Your task to perform on an android device: Clear the cart on newegg. Image 0: 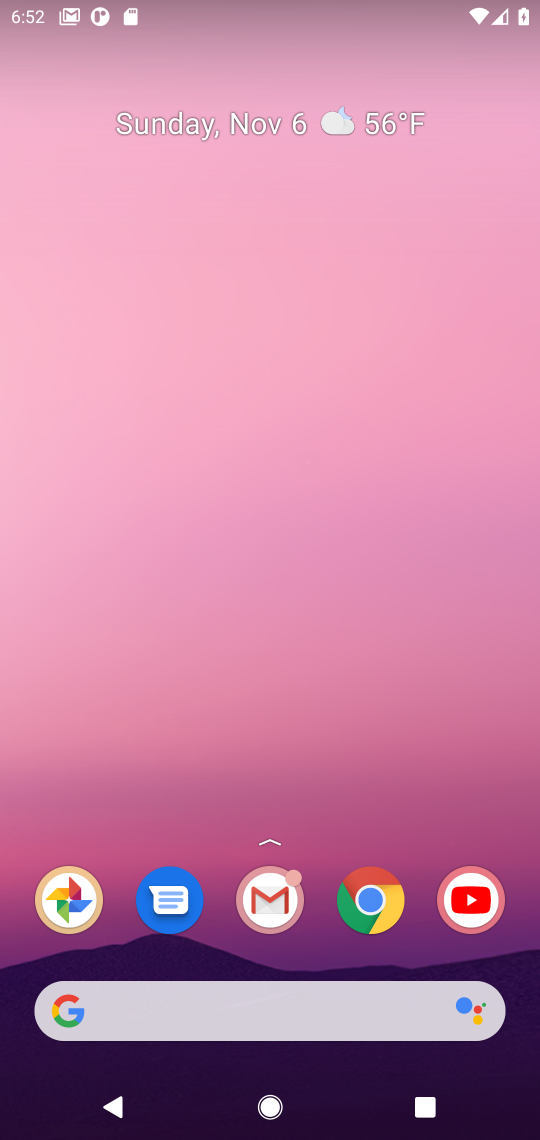
Step 0: drag from (329, 836) to (316, 12)
Your task to perform on an android device: Clear the cart on newegg. Image 1: 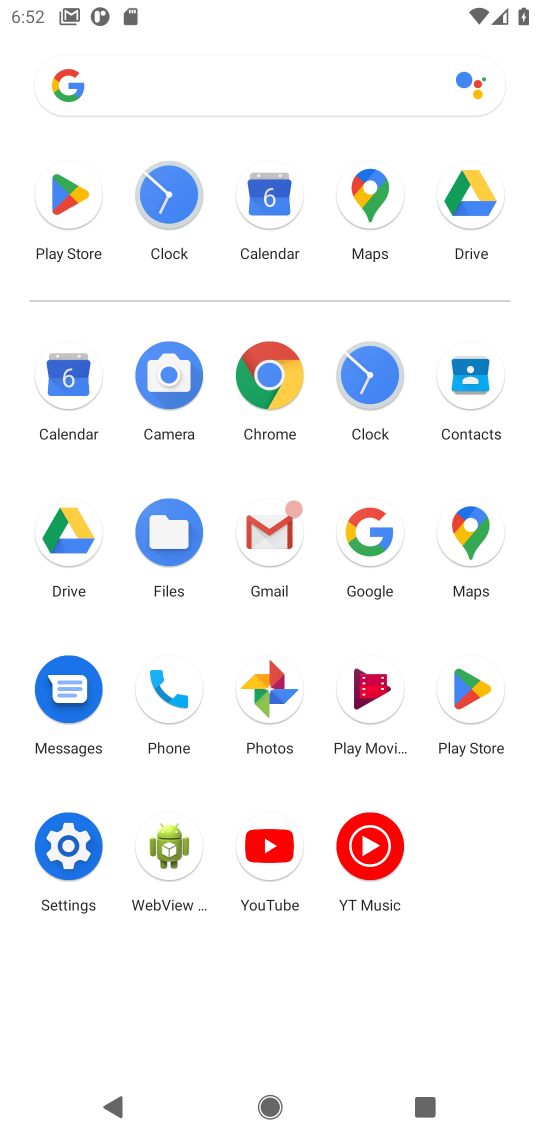
Step 1: click (263, 377)
Your task to perform on an android device: Clear the cart on newegg. Image 2: 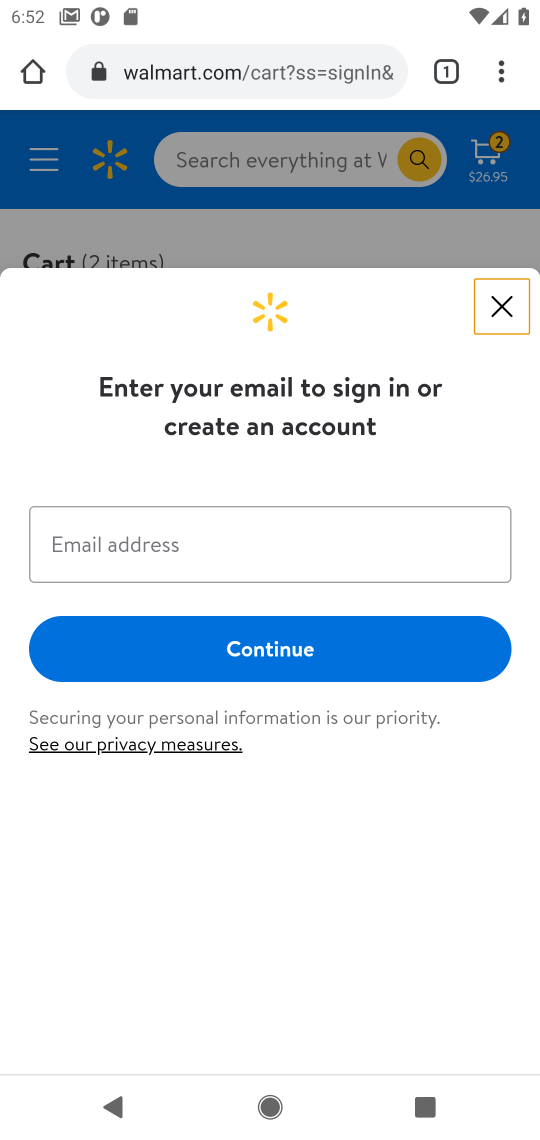
Step 2: click (303, 67)
Your task to perform on an android device: Clear the cart on newegg. Image 3: 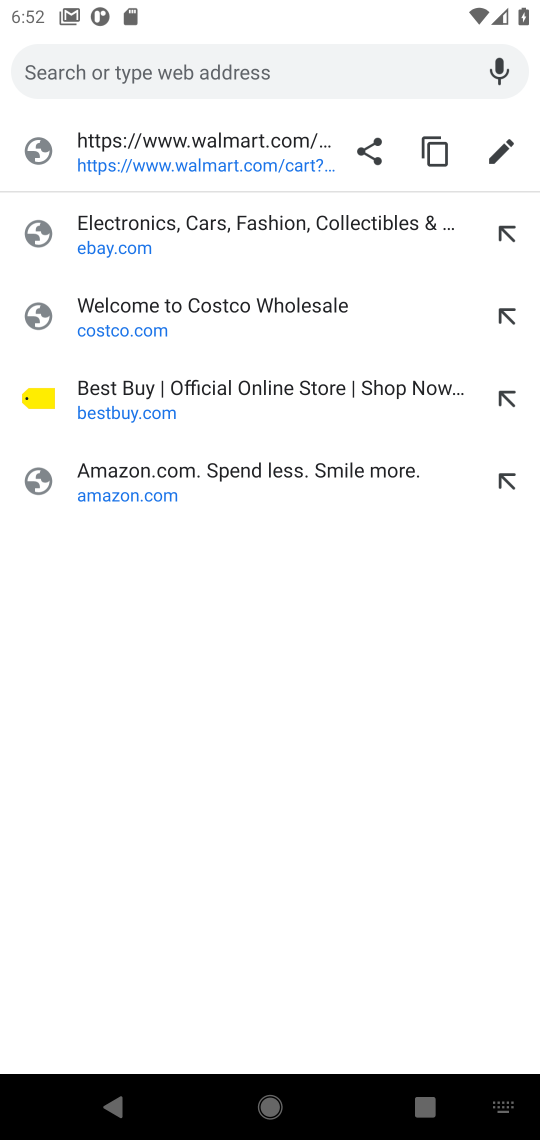
Step 3: type "newegg.com"
Your task to perform on an android device: Clear the cart on newegg. Image 4: 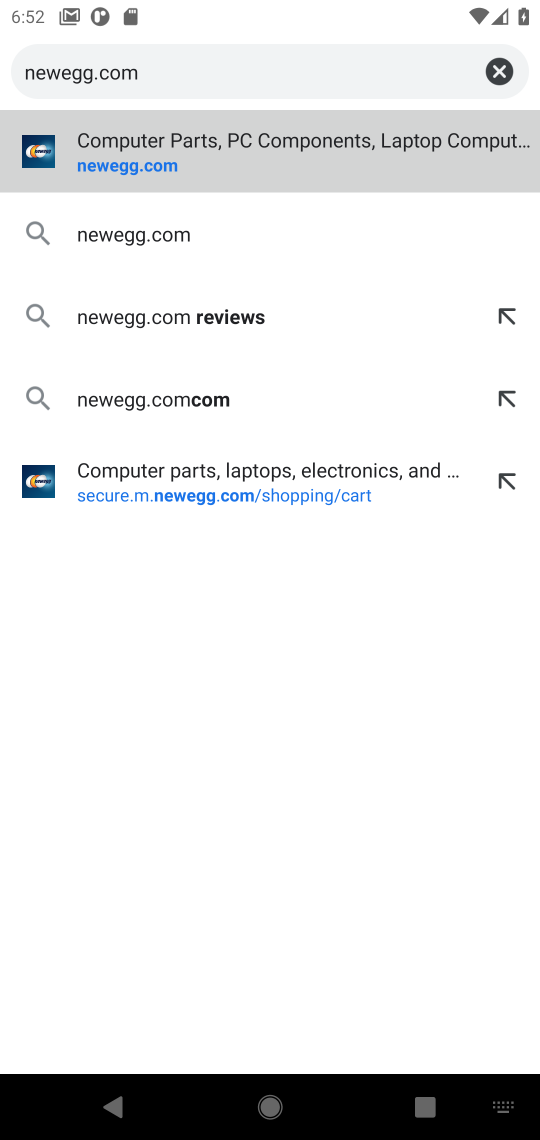
Step 4: press enter
Your task to perform on an android device: Clear the cart on newegg. Image 5: 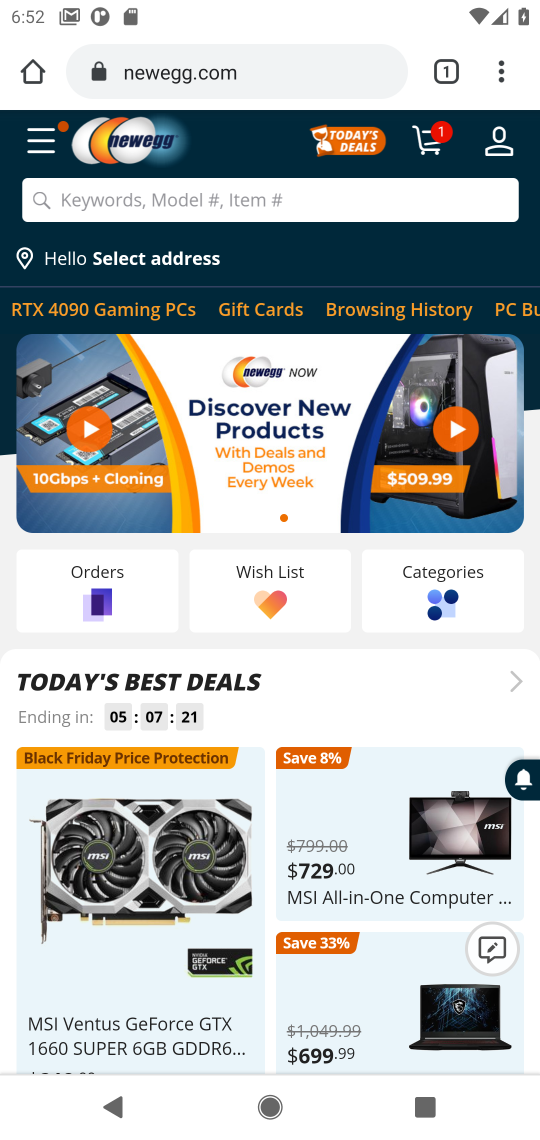
Step 5: click (433, 130)
Your task to perform on an android device: Clear the cart on newegg. Image 6: 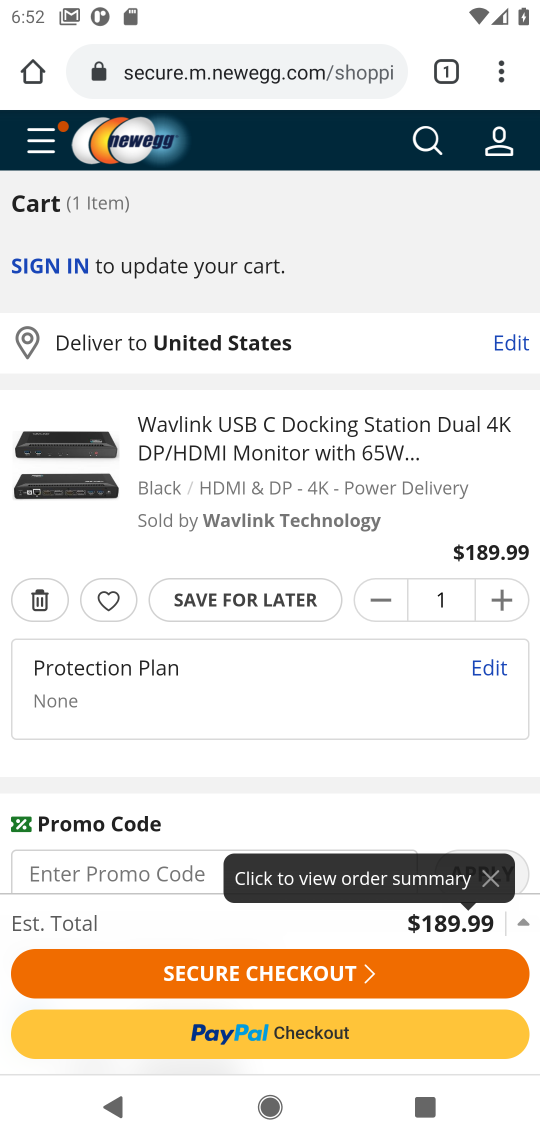
Step 6: click (34, 600)
Your task to perform on an android device: Clear the cart on newegg. Image 7: 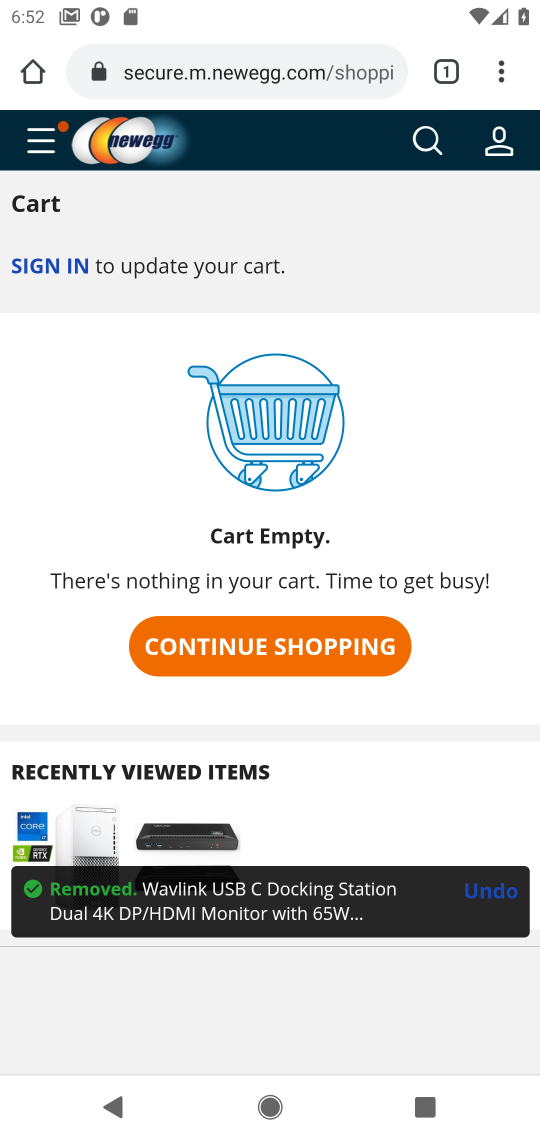
Step 7: task complete